Your task to perform on an android device: turn off location history Image 0: 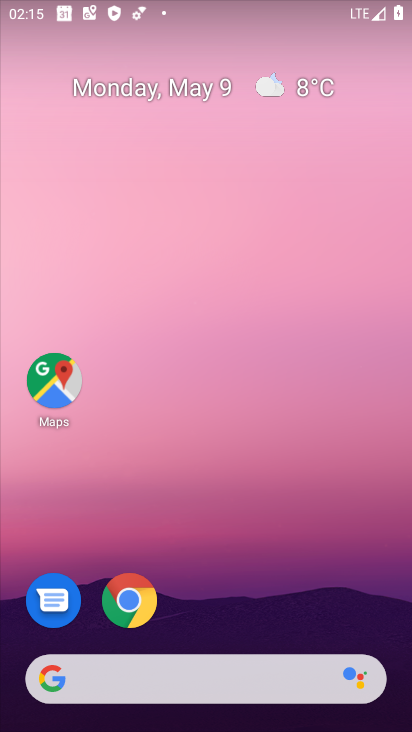
Step 0: drag from (220, 627) to (251, 132)
Your task to perform on an android device: turn off location history Image 1: 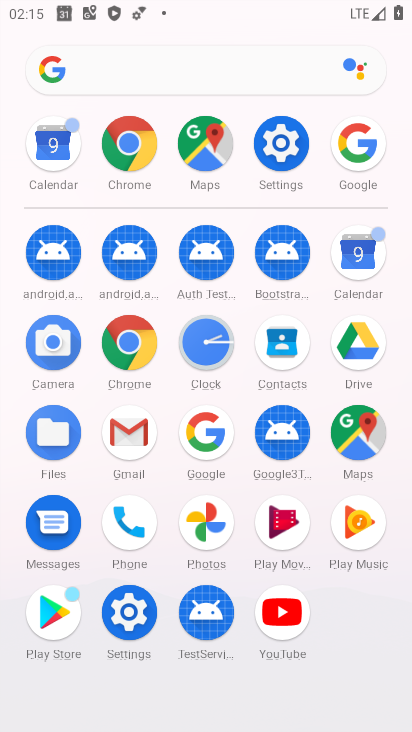
Step 1: click (280, 138)
Your task to perform on an android device: turn off location history Image 2: 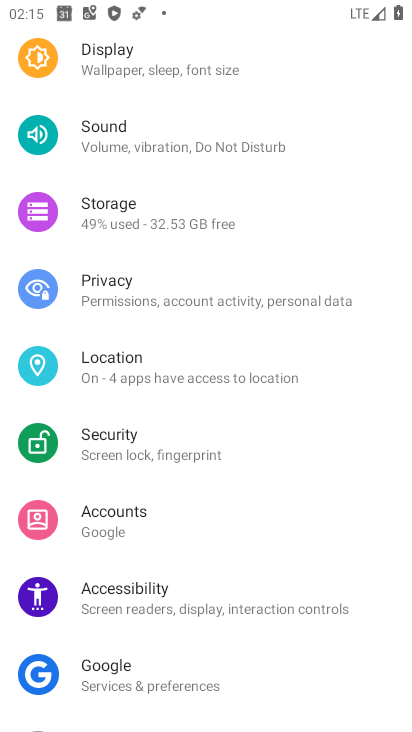
Step 2: click (134, 373)
Your task to perform on an android device: turn off location history Image 3: 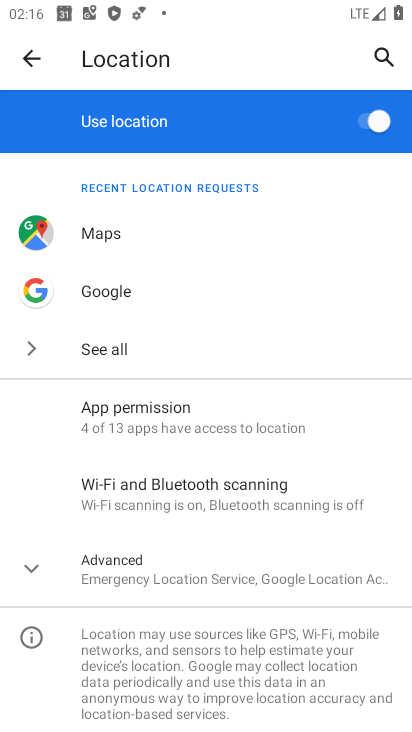
Step 3: click (27, 566)
Your task to perform on an android device: turn off location history Image 4: 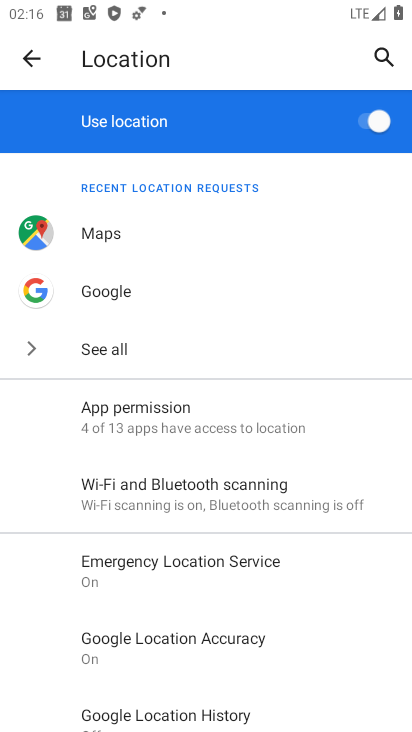
Step 4: click (264, 715)
Your task to perform on an android device: turn off location history Image 5: 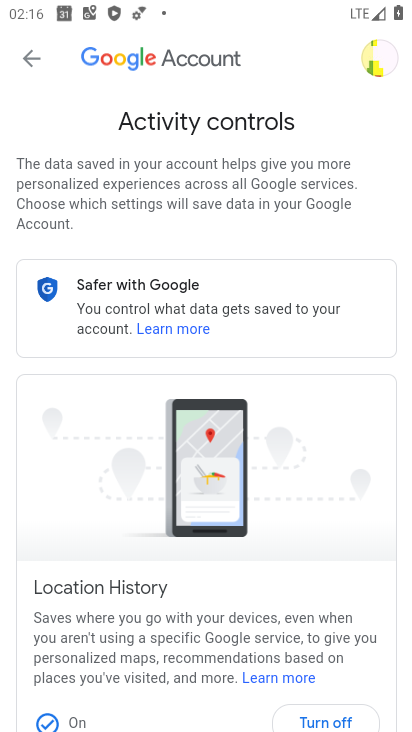
Step 5: drag from (183, 601) to (265, 195)
Your task to perform on an android device: turn off location history Image 6: 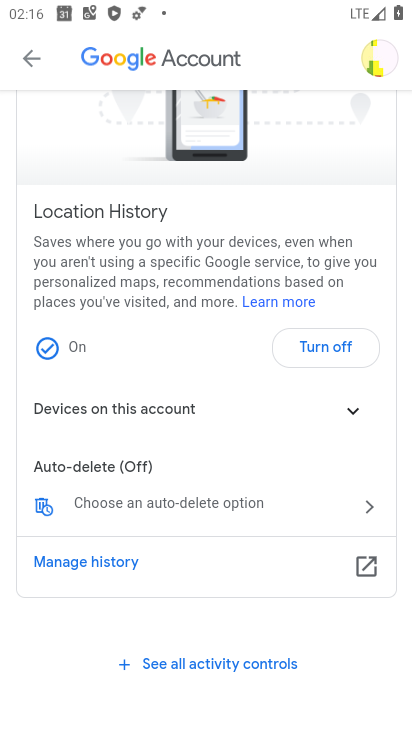
Step 6: click (325, 347)
Your task to perform on an android device: turn off location history Image 7: 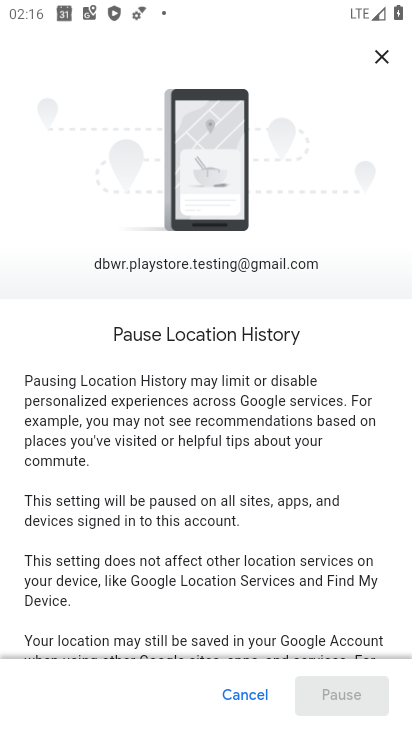
Step 7: drag from (273, 603) to (291, 198)
Your task to perform on an android device: turn off location history Image 8: 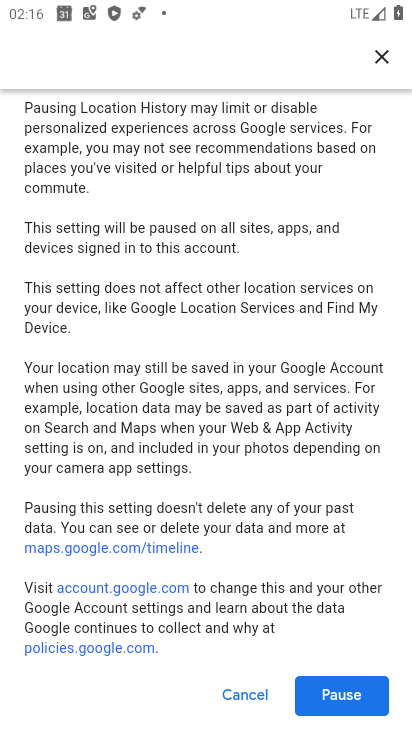
Step 8: click (339, 687)
Your task to perform on an android device: turn off location history Image 9: 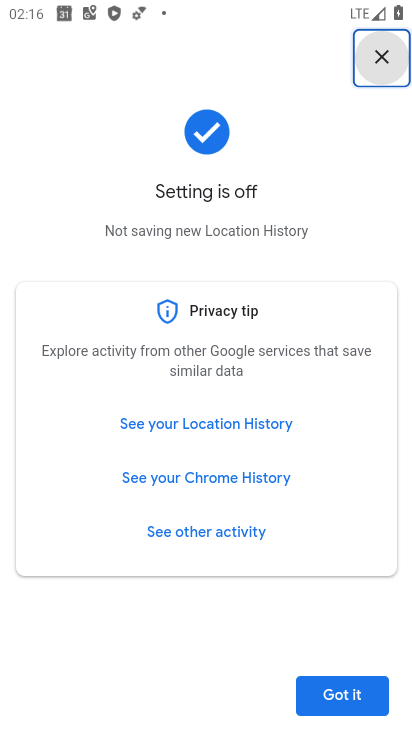
Step 9: click (342, 693)
Your task to perform on an android device: turn off location history Image 10: 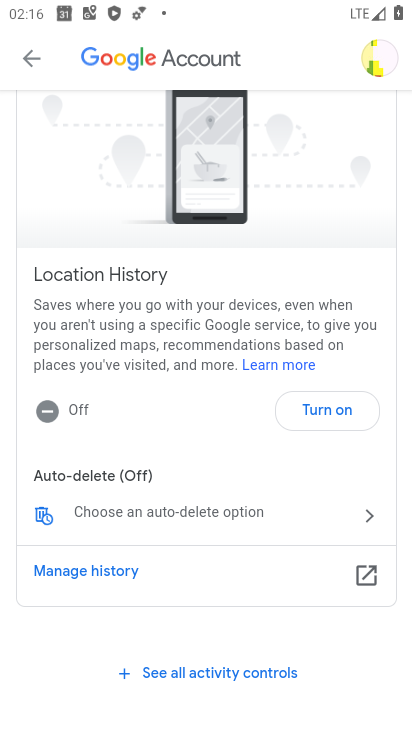
Step 10: task complete